Your task to perform on an android device: turn pop-ups off in chrome Image 0: 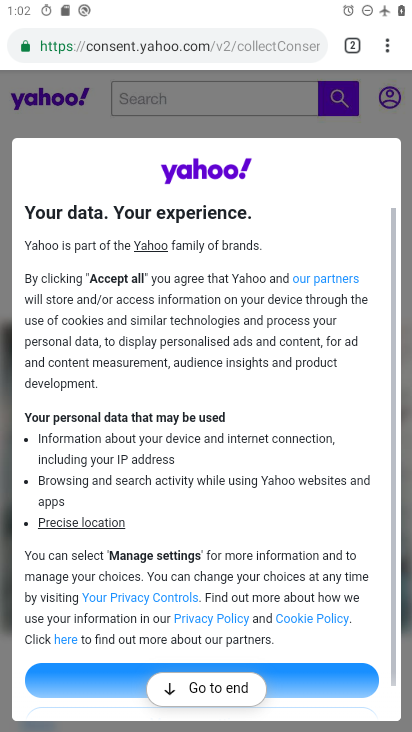
Step 0: press home button
Your task to perform on an android device: turn pop-ups off in chrome Image 1: 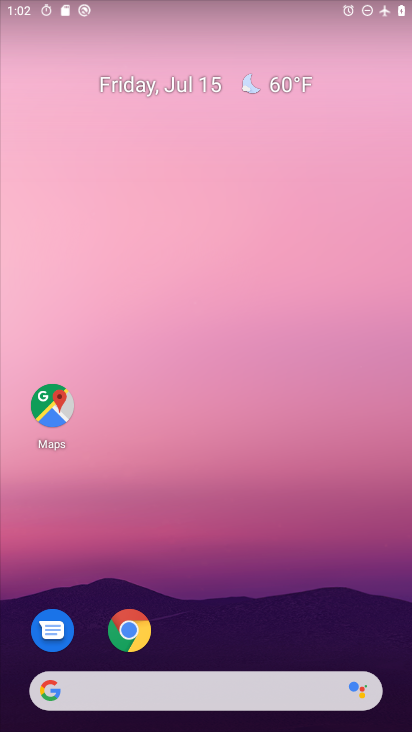
Step 1: click (108, 644)
Your task to perform on an android device: turn pop-ups off in chrome Image 2: 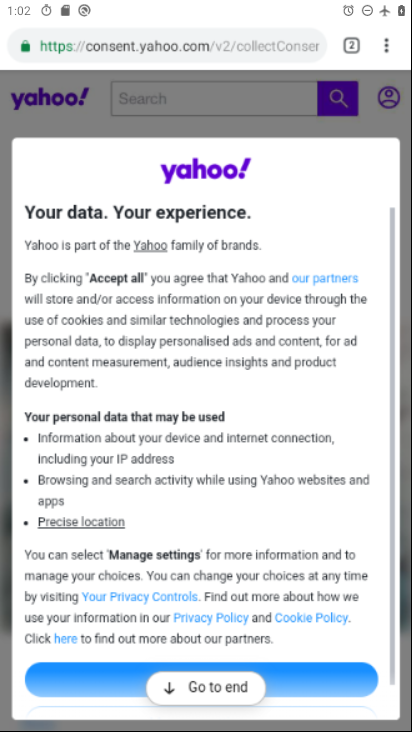
Step 2: click (113, 637)
Your task to perform on an android device: turn pop-ups off in chrome Image 3: 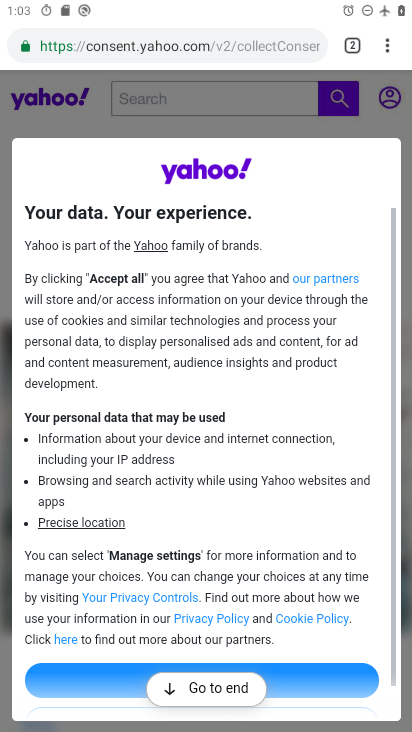
Step 3: click (382, 41)
Your task to perform on an android device: turn pop-ups off in chrome Image 4: 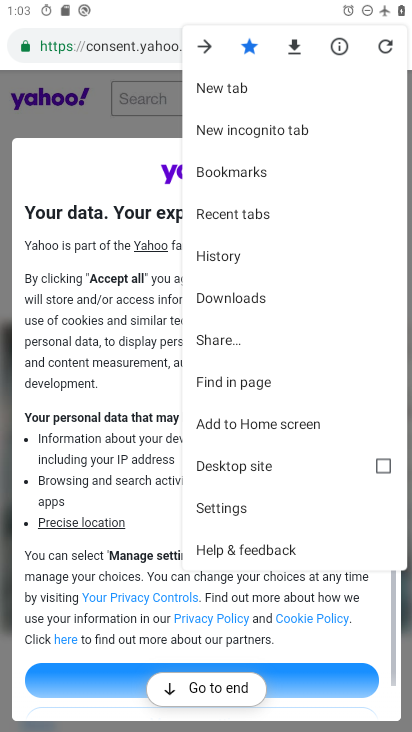
Step 4: click (199, 505)
Your task to perform on an android device: turn pop-ups off in chrome Image 5: 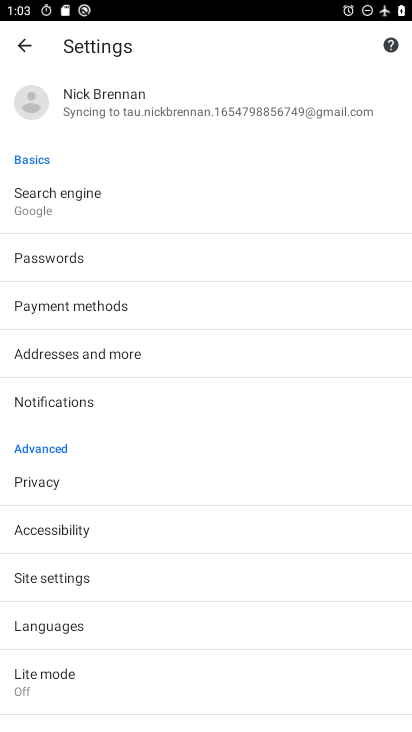
Step 5: click (68, 581)
Your task to perform on an android device: turn pop-ups off in chrome Image 6: 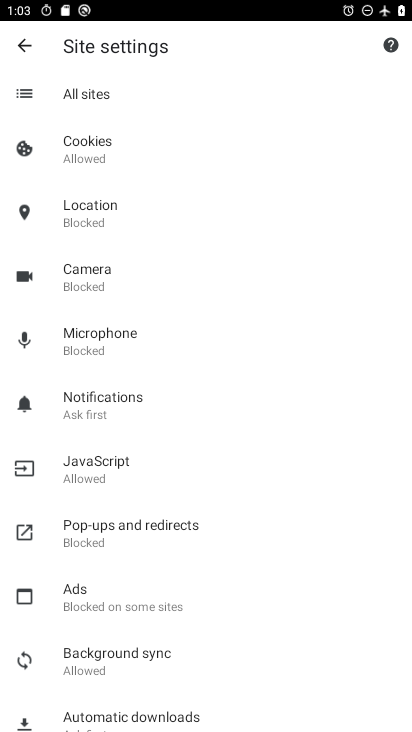
Step 6: click (114, 536)
Your task to perform on an android device: turn pop-ups off in chrome Image 7: 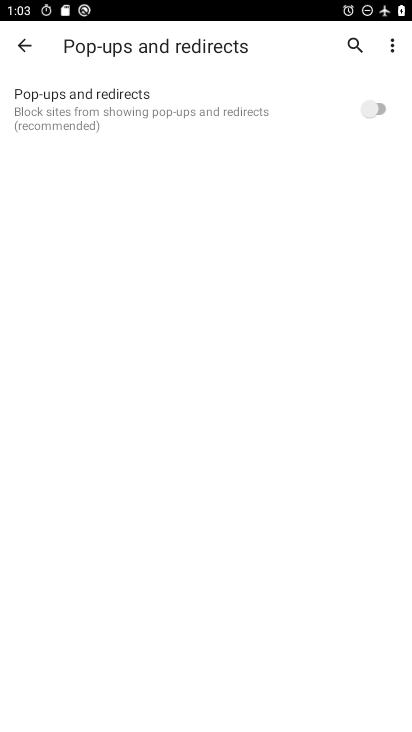
Step 7: task complete